Your task to perform on an android device: Go to Wikipedia Image 0: 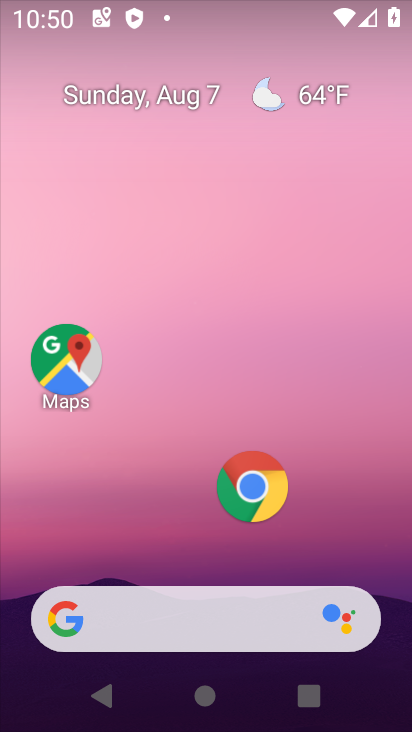
Step 0: click (255, 617)
Your task to perform on an android device: Go to Wikipedia Image 1: 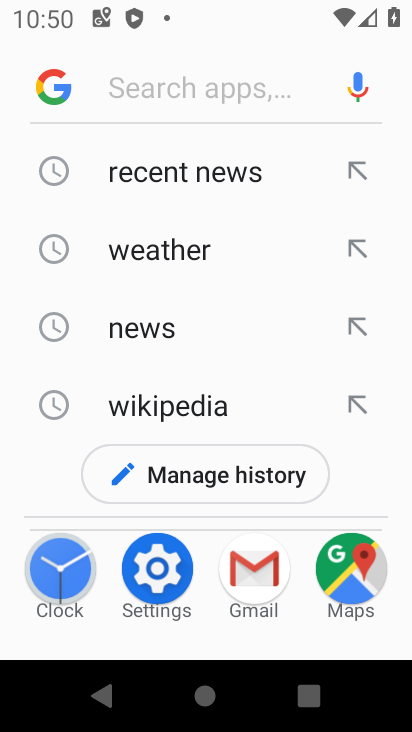
Step 1: click (151, 417)
Your task to perform on an android device: Go to Wikipedia Image 2: 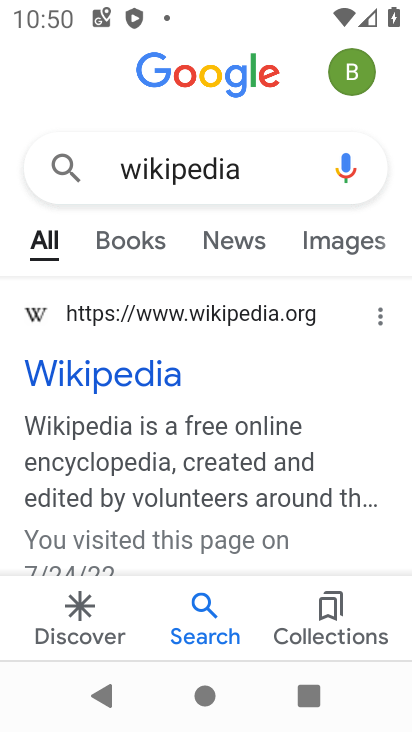
Step 2: task complete